Your task to perform on an android device: add a contact in the contacts app Image 0: 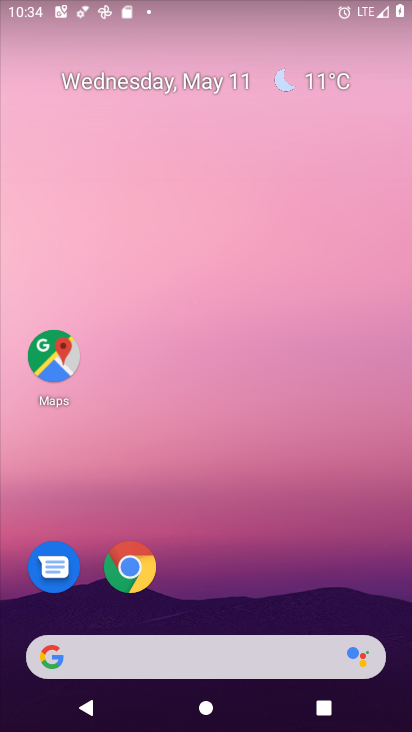
Step 0: drag from (270, 547) to (239, 84)
Your task to perform on an android device: add a contact in the contacts app Image 1: 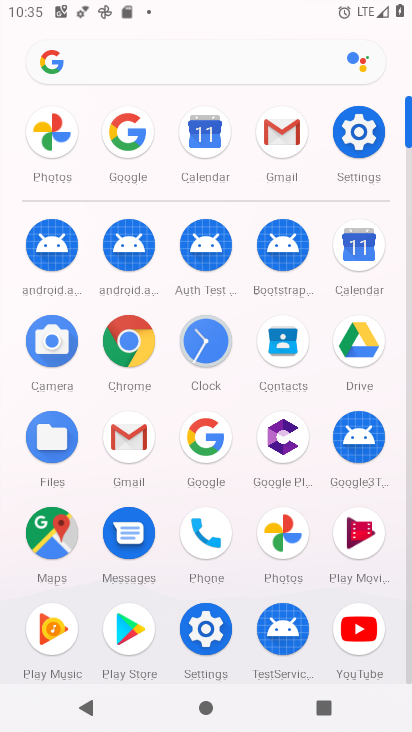
Step 1: click (291, 353)
Your task to perform on an android device: add a contact in the contacts app Image 2: 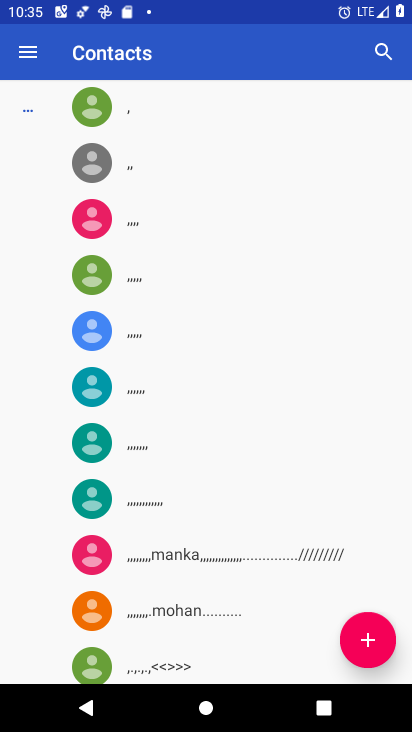
Step 2: click (373, 637)
Your task to perform on an android device: add a contact in the contacts app Image 3: 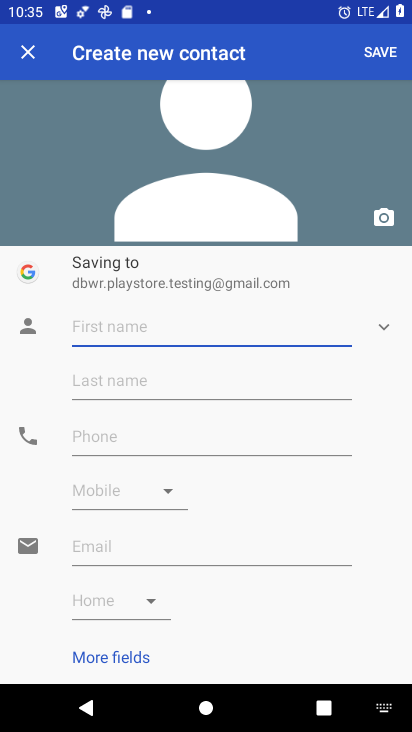
Step 3: type "fgdsf"
Your task to perform on an android device: add a contact in the contacts app Image 4: 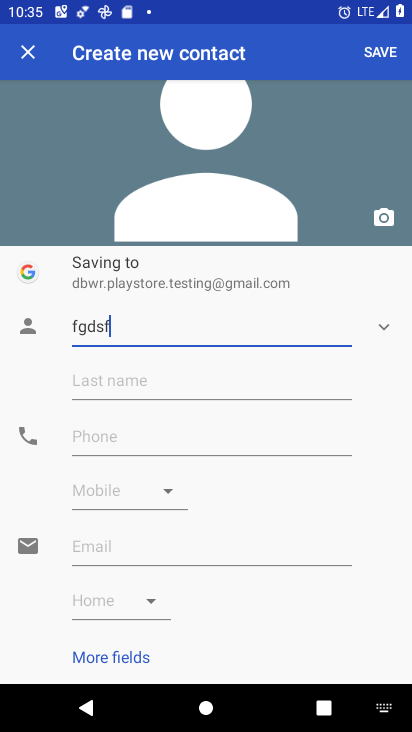
Step 4: type ""
Your task to perform on an android device: add a contact in the contacts app Image 5: 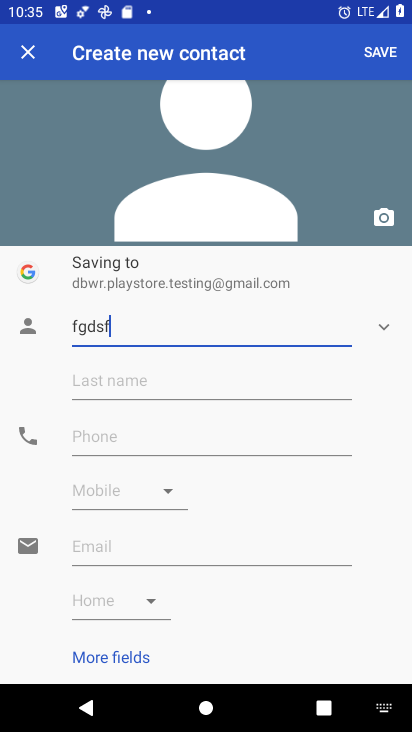
Step 5: click (270, 379)
Your task to perform on an android device: add a contact in the contacts app Image 6: 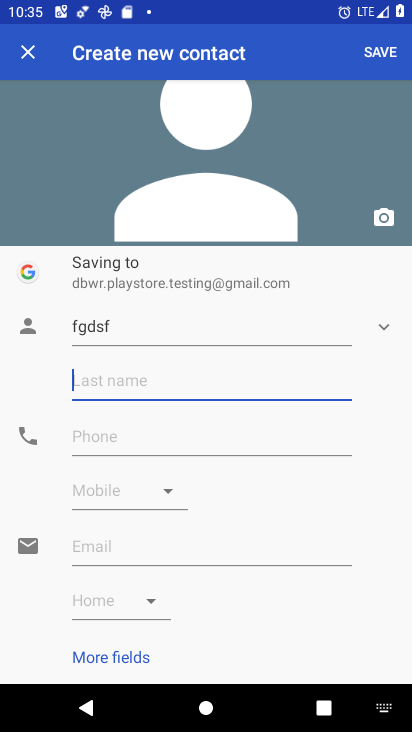
Step 6: type "dfgdfg"
Your task to perform on an android device: add a contact in the contacts app Image 7: 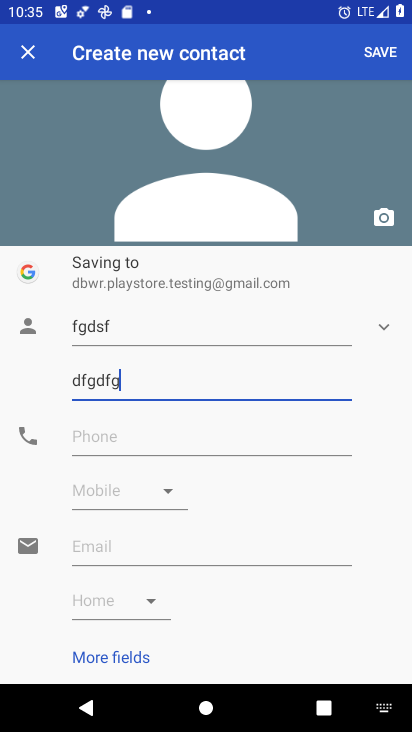
Step 7: type ""
Your task to perform on an android device: add a contact in the contacts app Image 8: 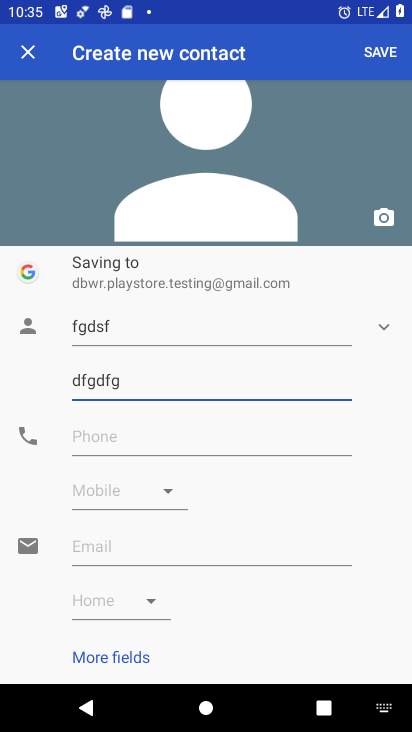
Step 8: click (227, 450)
Your task to perform on an android device: add a contact in the contacts app Image 9: 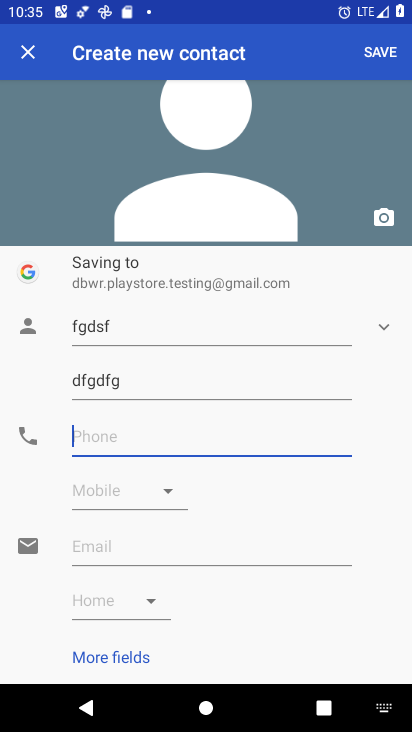
Step 9: type "4456456456"
Your task to perform on an android device: add a contact in the contacts app Image 10: 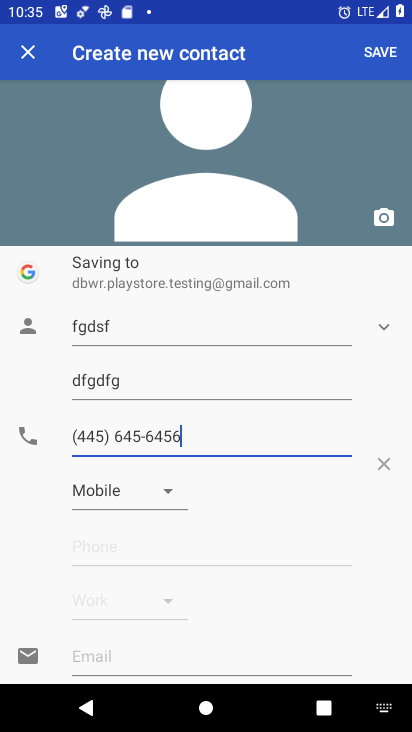
Step 10: type ""
Your task to perform on an android device: add a contact in the contacts app Image 11: 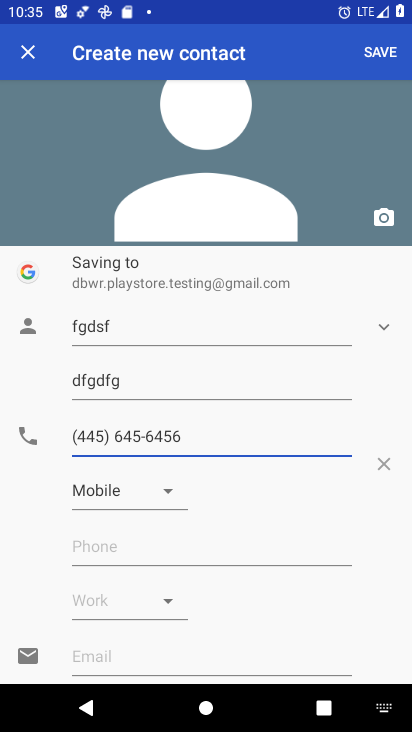
Step 11: task complete